Your task to perform on an android device: Open Amazon Image 0: 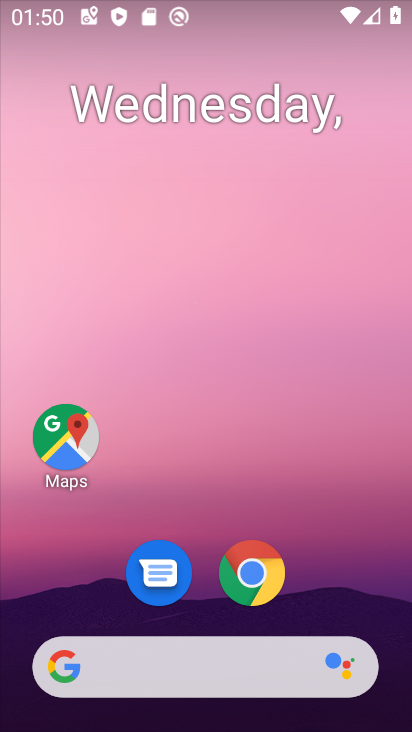
Step 0: click (251, 572)
Your task to perform on an android device: Open Amazon Image 1: 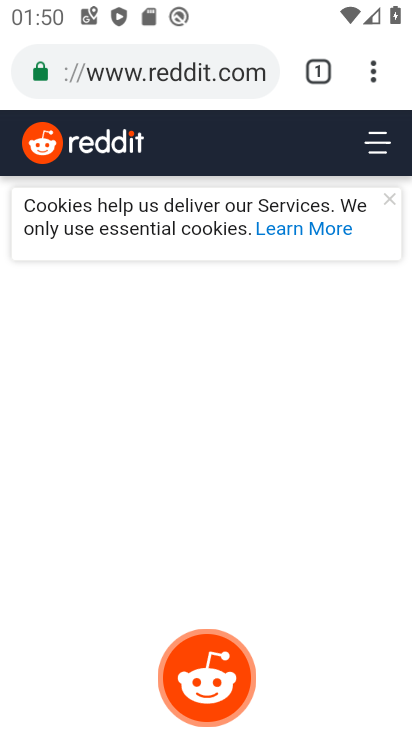
Step 1: click (375, 72)
Your task to perform on an android device: Open Amazon Image 2: 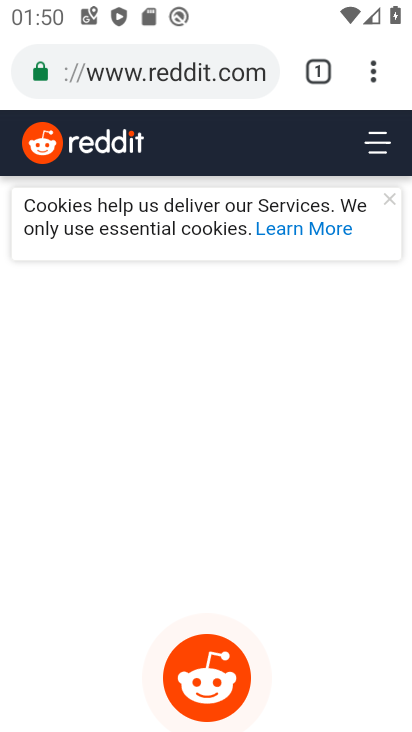
Step 2: click (227, 70)
Your task to perform on an android device: Open Amazon Image 3: 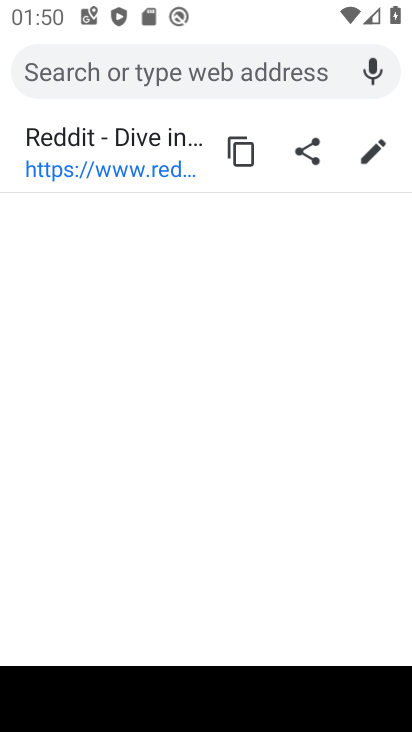
Step 3: type "Amazon"
Your task to perform on an android device: Open Amazon Image 4: 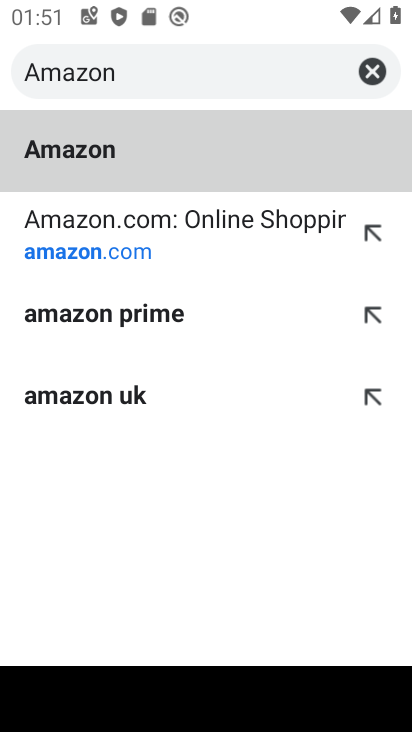
Step 4: click (93, 145)
Your task to perform on an android device: Open Amazon Image 5: 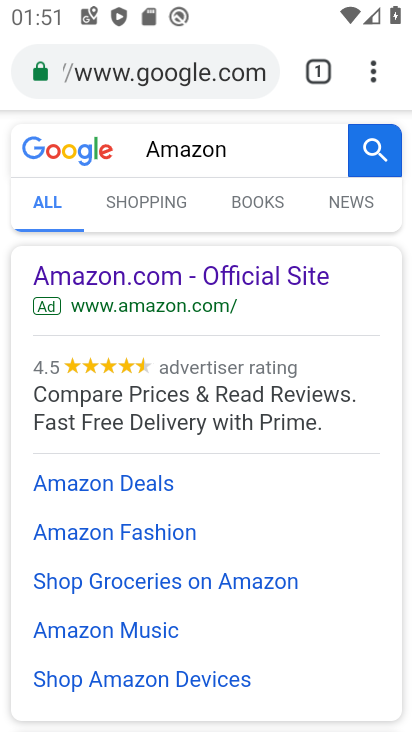
Step 5: click (152, 280)
Your task to perform on an android device: Open Amazon Image 6: 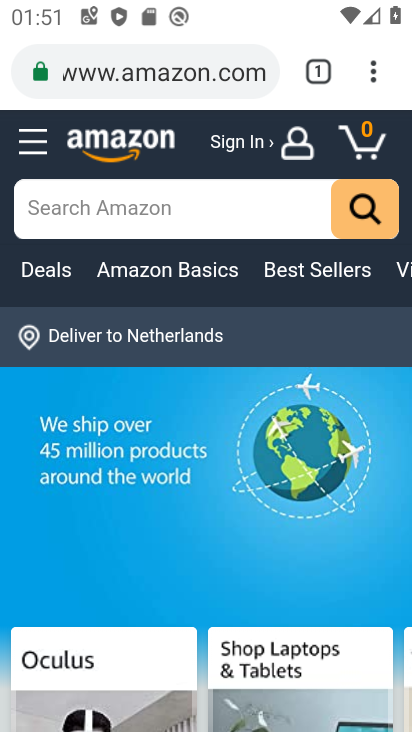
Step 6: task complete